Your task to perform on an android device: Go to Yahoo.com Image 0: 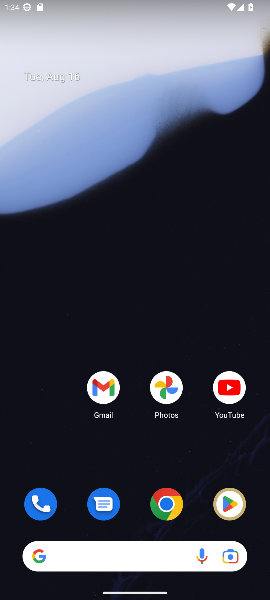
Step 0: click (167, 505)
Your task to perform on an android device: Go to Yahoo.com Image 1: 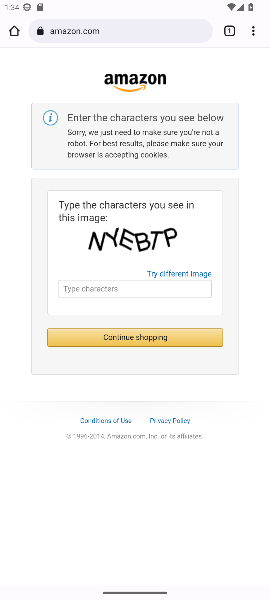
Step 1: click (249, 24)
Your task to perform on an android device: Go to Yahoo.com Image 2: 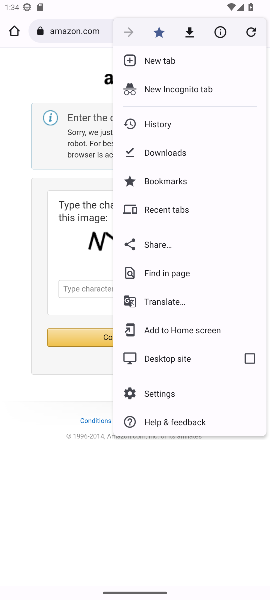
Step 2: click (162, 59)
Your task to perform on an android device: Go to Yahoo.com Image 3: 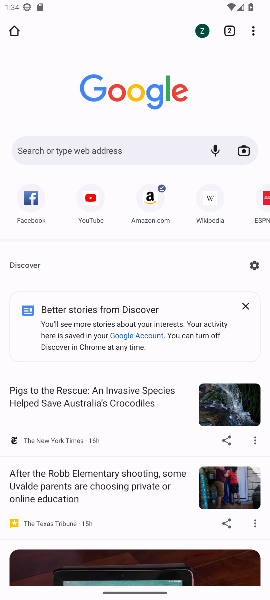
Step 3: click (97, 151)
Your task to perform on an android device: Go to Yahoo.com Image 4: 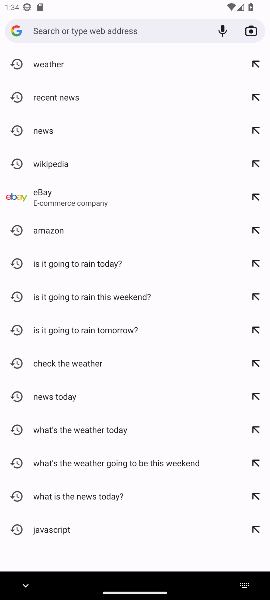
Step 4: type "yahoo.com"
Your task to perform on an android device: Go to Yahoo.com Image 5: 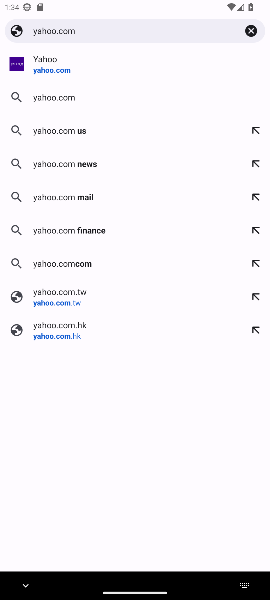
Step 5: click (35, 67)
Your task to perform on an android device: Go to Yahoo.com Image 6: 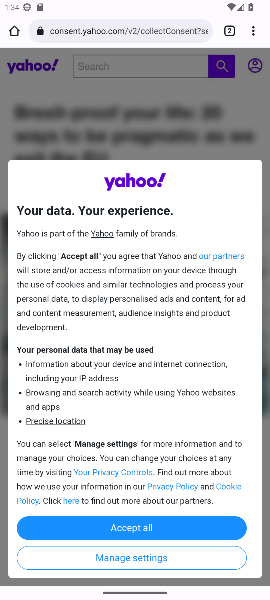
Step 6: click (136, 526)
Your task to perform on an android device: Go to Yahoo.com Image 7: 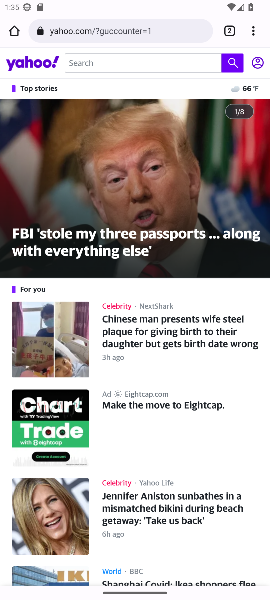
Step 7: task complete